Your task to perform on an android device: turn on the 12-hour format for clock Image 0: 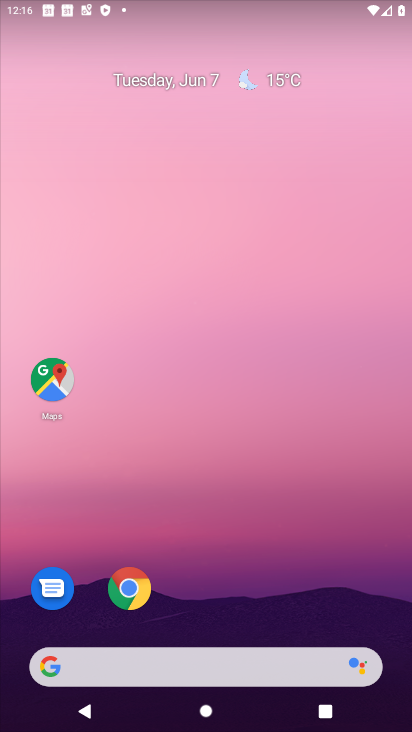
Step 0: drag from (249, 560) to (299, 310)
Your task to perform on an android device: turn on the 12-hour format for clock Image 1: 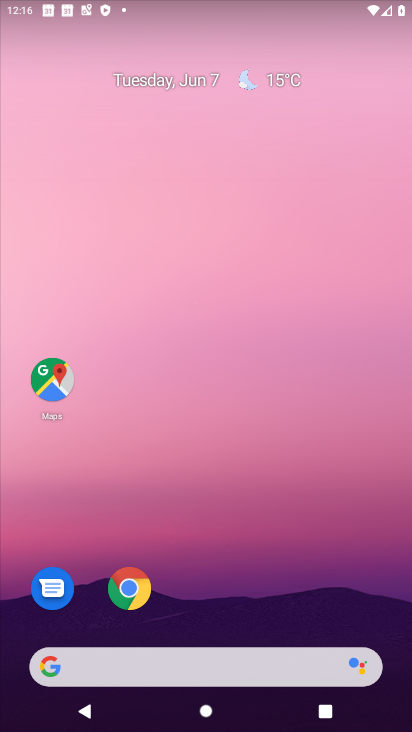
Step 1: drag from (335, 567) to (353, 194)
Your task to perform on an android device: turn on the 12-hour format for clock Image 2: 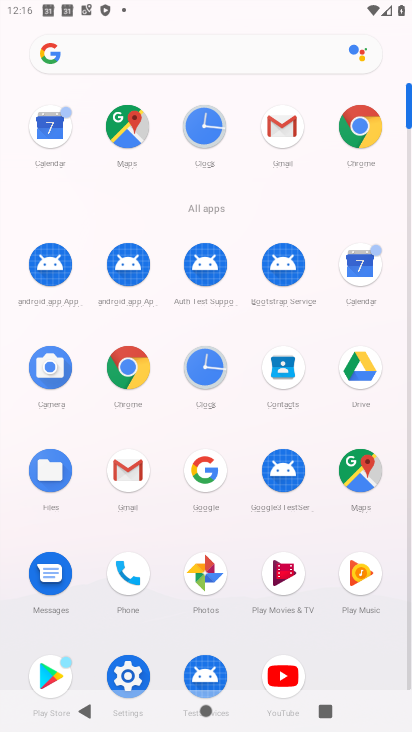
Step 2: click (201, 378)
Your task to perform on an android device: turn on the 12-hour format for clock Image 3: 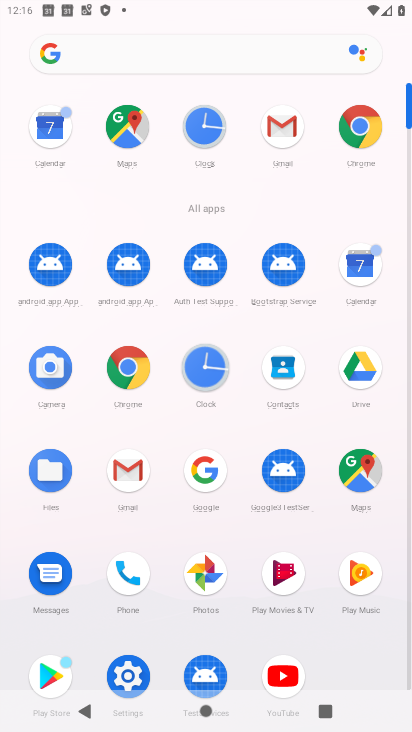
Step 3: click (202, 367)
Your task to perform on an android device: turn on the 12-hour format for clock Image 4: 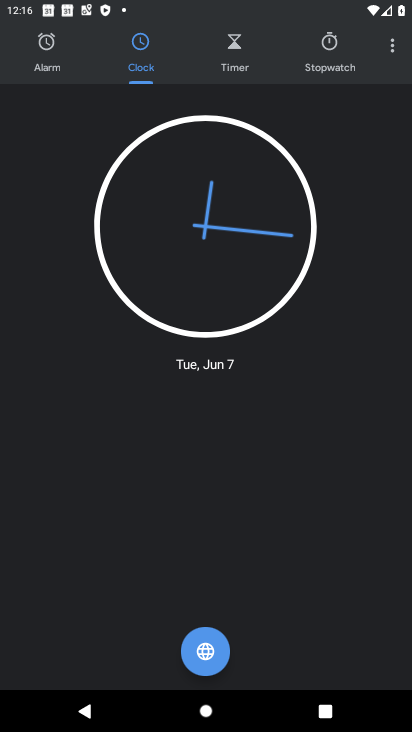
Step 4: click (388, 46)
Your task to perform on an android device: turn on the 12-hour format for clock Image 5: 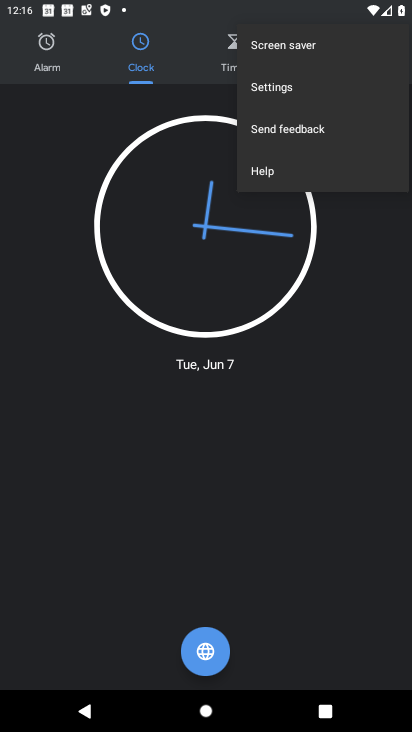
Step 5: click (295, 88)
Your task to perform on an android device: turn on the 12-hour format for clock Image 6: 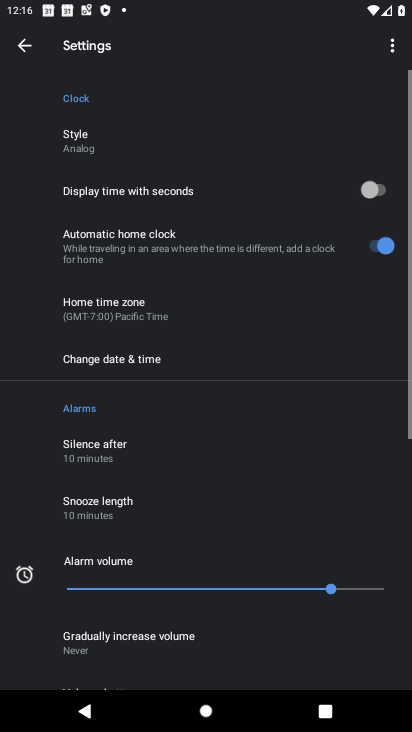
Step 6: click (200, 355)
Your task to perform on an android device: turn on the 12-hour format for clock Image 7: 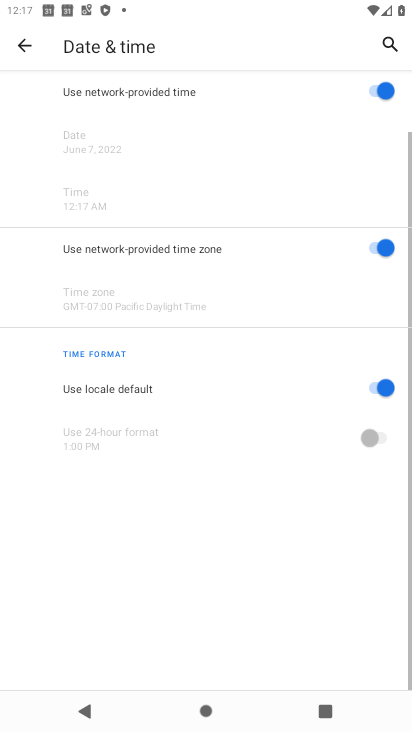
Step 7: click (373, 386)
Your task to perform on an android device: turn on the 12-hour format for clock Image 8: 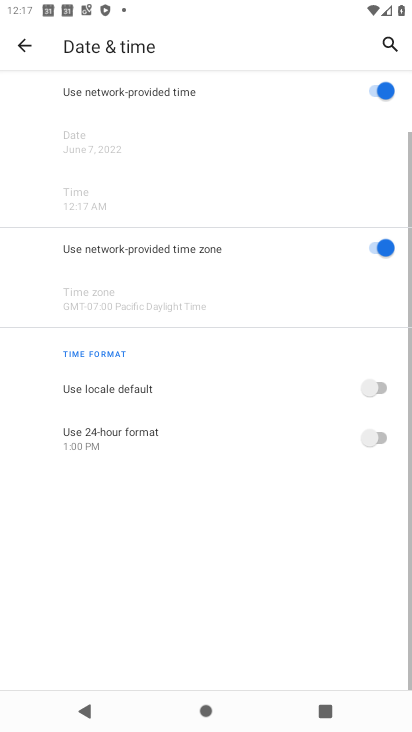
Step 8: click (385, 437)
Your task to perform on an android device: turn on the 12-hour format for clock Image 9: 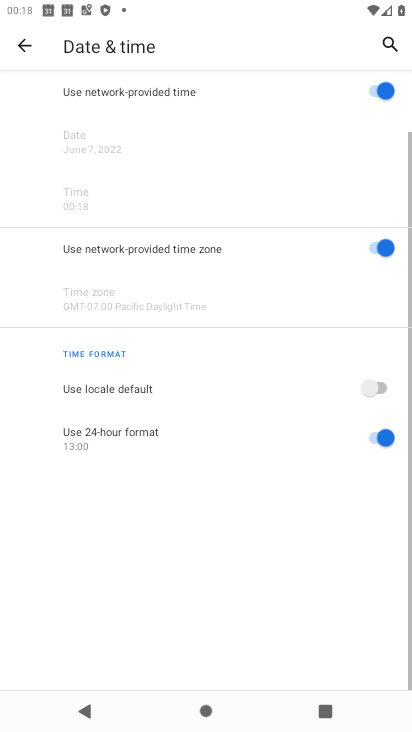
Step 9: task complete